Your task to perform on an android device: Go to Wikipedia Image 0: 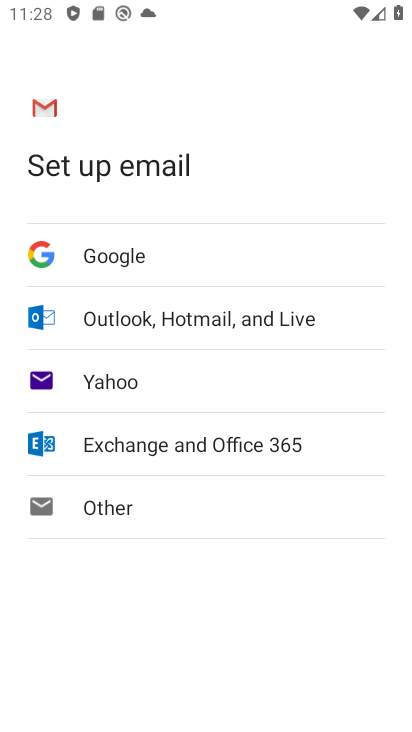
Step 0: press home button
Your task to perform on an android device: Go to Wikipedia Image 1: 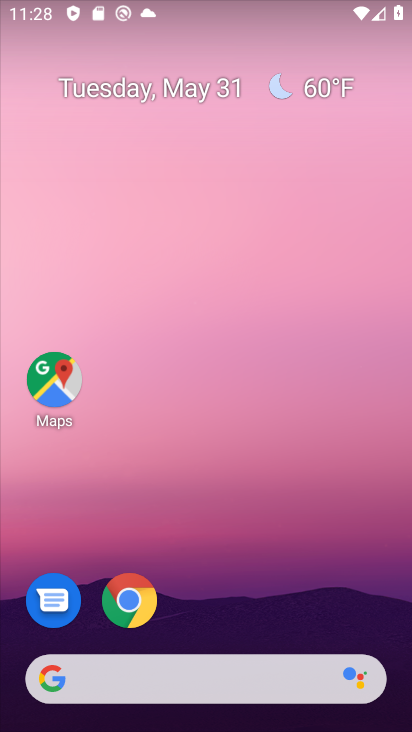
Step 1: drag from (359, 594) to (358, 137)
Your task to perform on an android device: Go to Wikipedia Image 2: 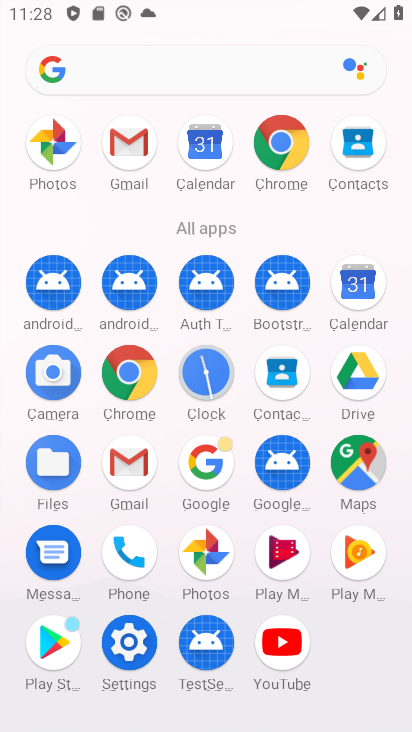
Step 2: click (128, 375)
Your task to perform on an android device: Go to Wikipedia Image 3: 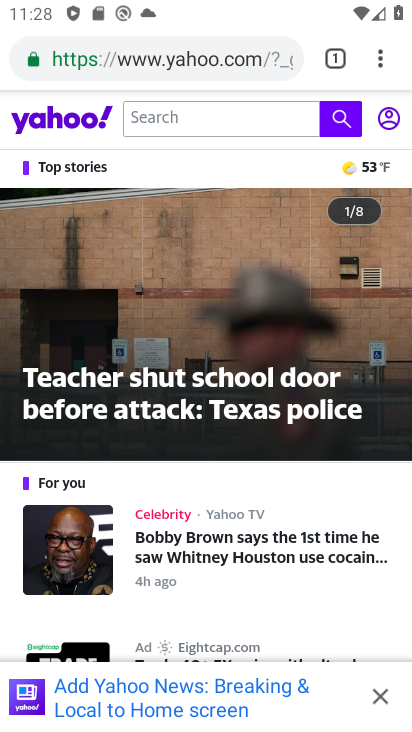
Step 3: click (247, 61)
Your task to perform on an android device: Go to Wikipedia Image 4: 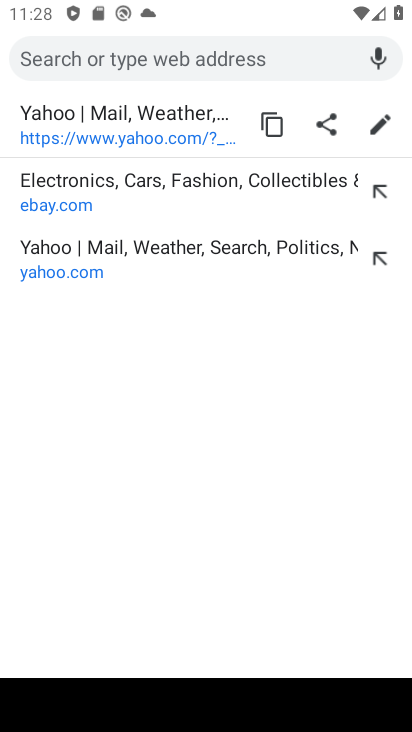
Step 4: type "wikipedia"
Your task to perform on an android device: Go to Wikipedia Image 5: 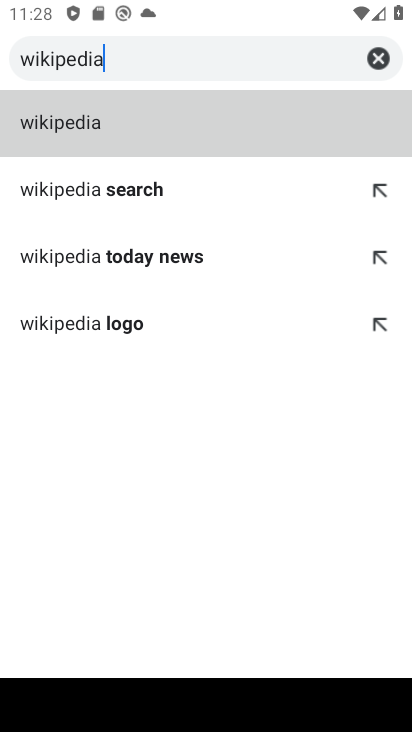
Step 5: click (122, 136)
Your task to perform on an android device: Go to Wikipedia Image 6: 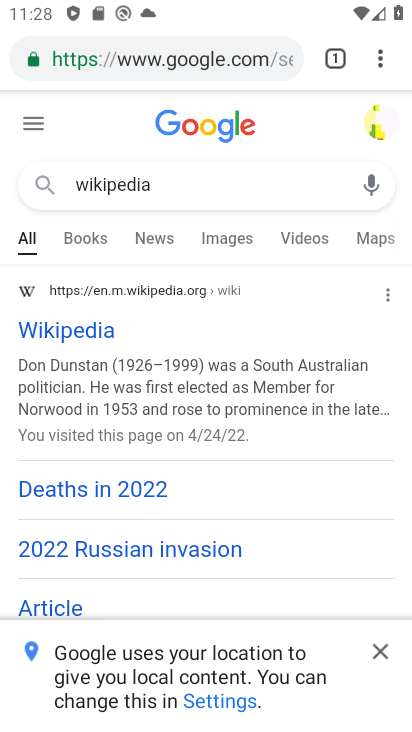
Step 6: task complete